Your task to perform on an android device: Open settings Image 0: 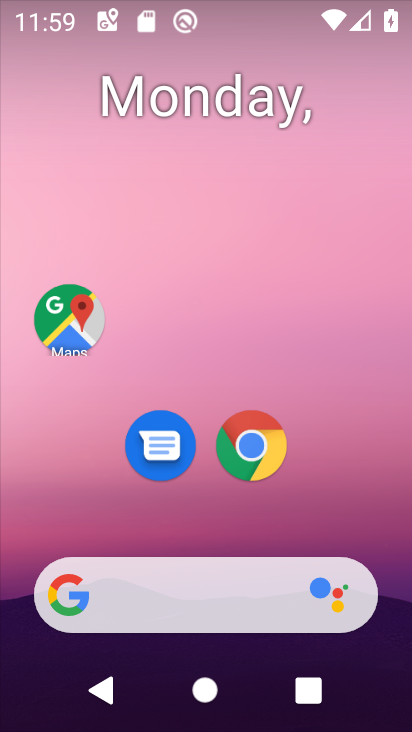
Step 0: drag from (320, 518) to (181, 5)
Your task to perform on an android device: Open settings Image 1: 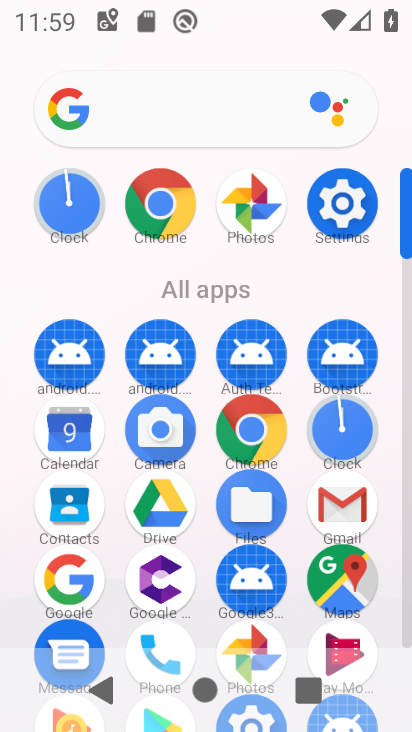
Step 1: click (339, 210)
Your task to perform on an android device: Open settings Image 2: 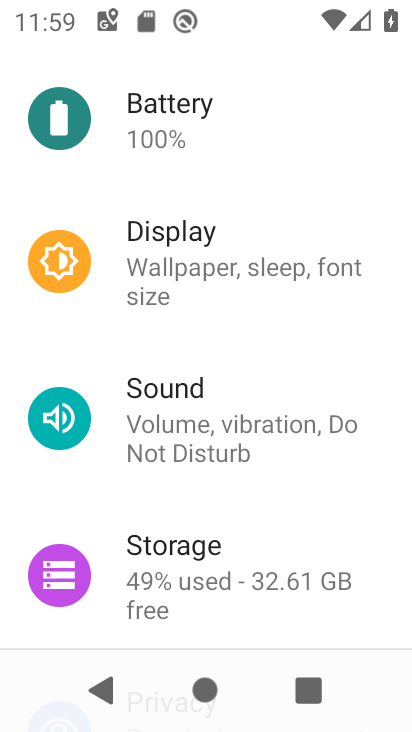
Step 2: task complete